Your task to perform on an android device: turn off picture-in-picture Image 0: 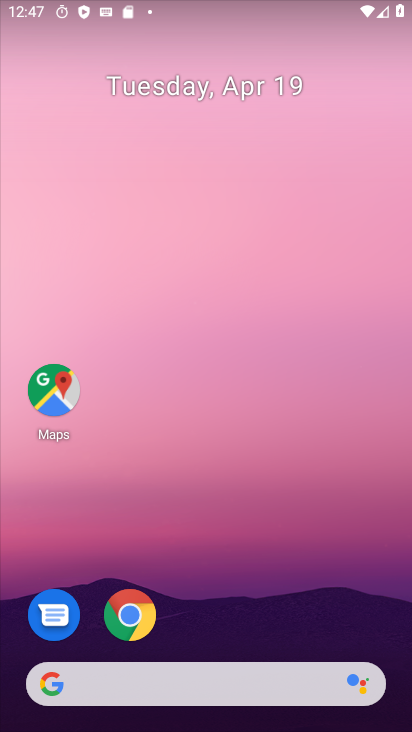
Step 0: drag from (358, 614) to (361, 79)
Your task to perform on an android device: turn off picture-in-picture Image 1: 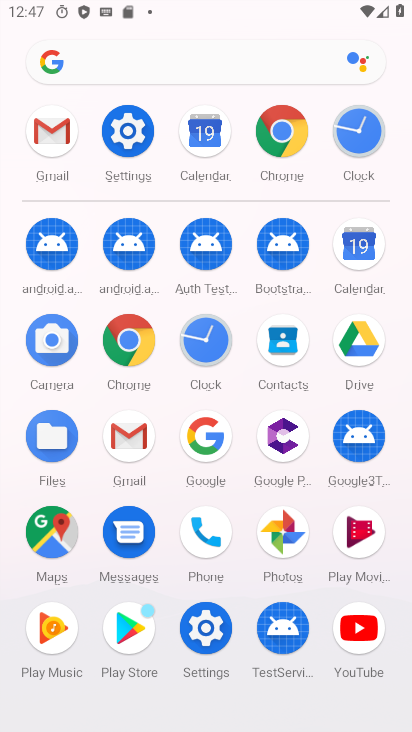
Step 1: click (128, 145)
Your task to perform on an android device: turn off picture-in-picture Image 2: 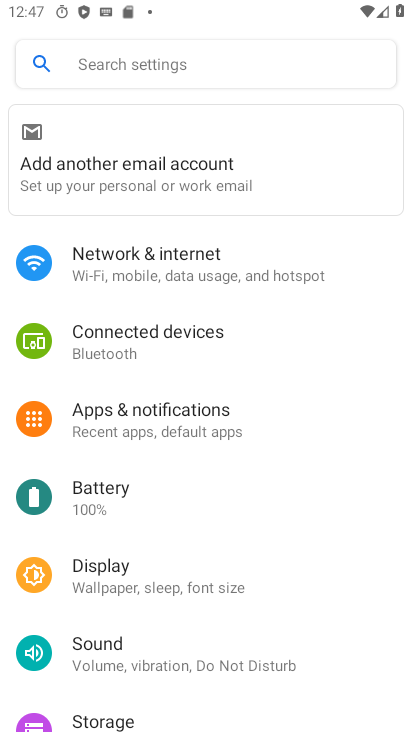
Step 2: drag from (354, 557) to (364, 365)
Your task to perform on an android device: turn off picture-in-picture Image 3: 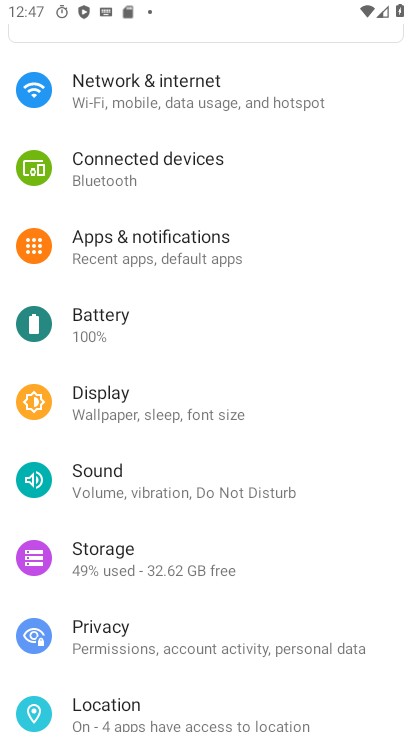
Step 3: drag from (377, 600) to (364, 364)
Your task to perform on an android device: turn off picture-in-picture Image 4: 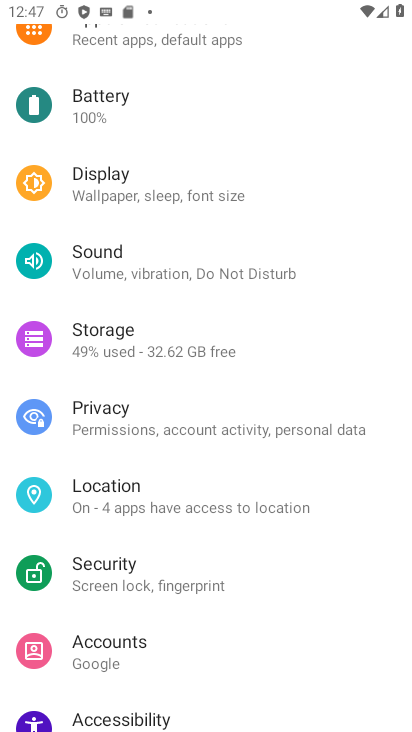
Step 4: drag from (378, 607) to (389, 371)
Your task to perform on an android device: turn off picture-in-picture Image 5: 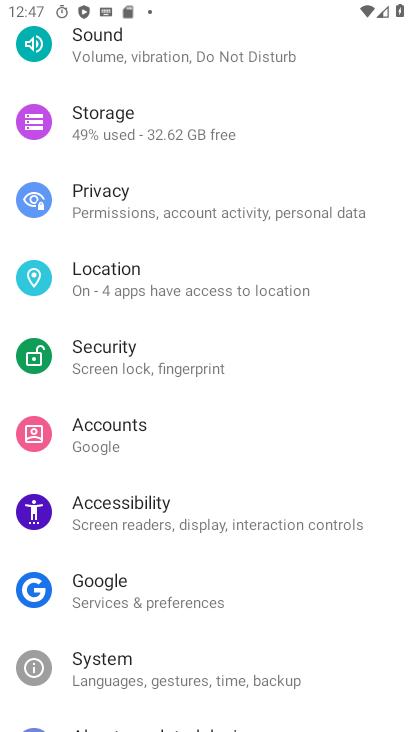
Step 5: drag from (369, 626) to (378, 399)
Your task to perform on an android device: turn off picture-in-picture Image 6: 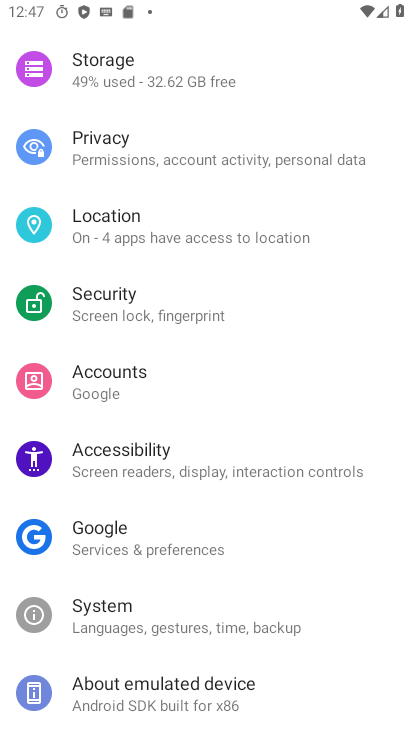
Step 6: drag from (376, 292) to (386, 509)
Your task to perform on an android device: turn off picture-in-picture Image 7: 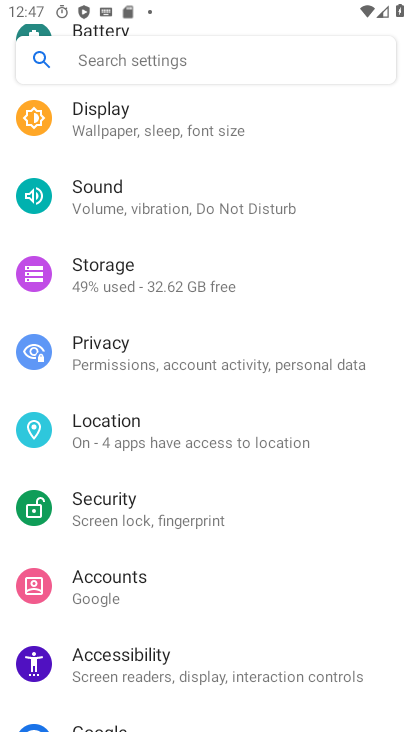
Step 7: drag from (378, 280) to (368, 445)
Your task to perform on an android device: turn off picture-in-picture Image 8: 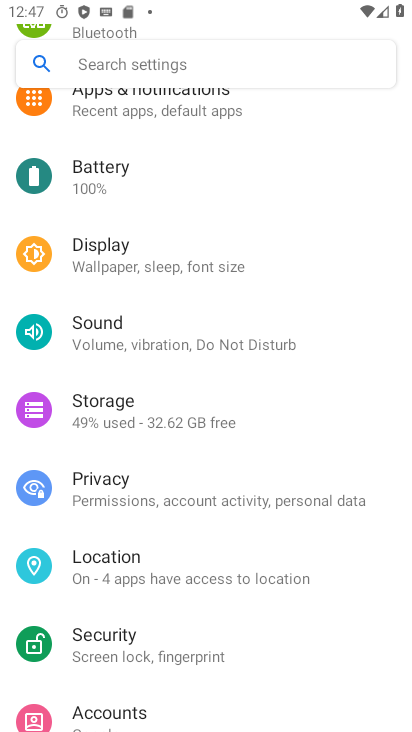
Step 8: drag from (365, 218) to (368, 428)
Your task to perform on an android device: turn off picture-in-picture Image 9: 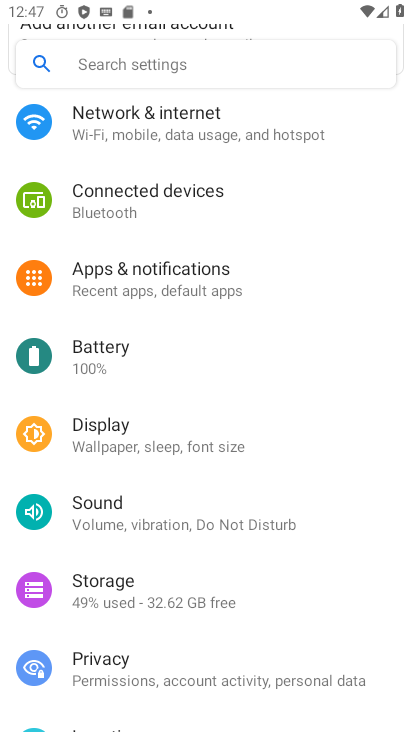
Step 9: click (193, 271)
Your task to perform on an android device: turn off picture-in-picture Image 10: 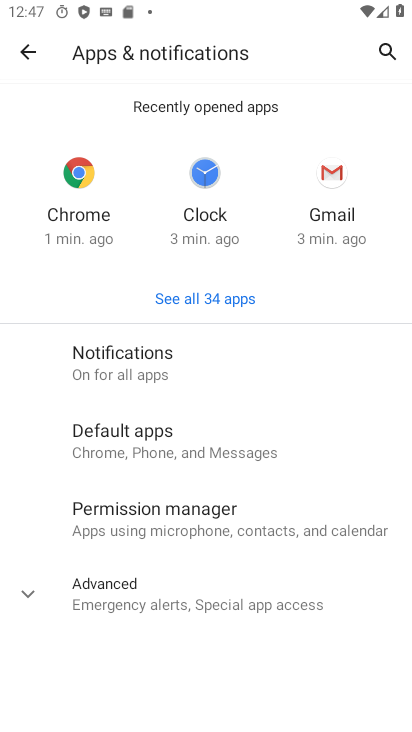
Step 10: click (265, 596)
Your task to perform on an android device: turn off picture-in-picture Image 11: 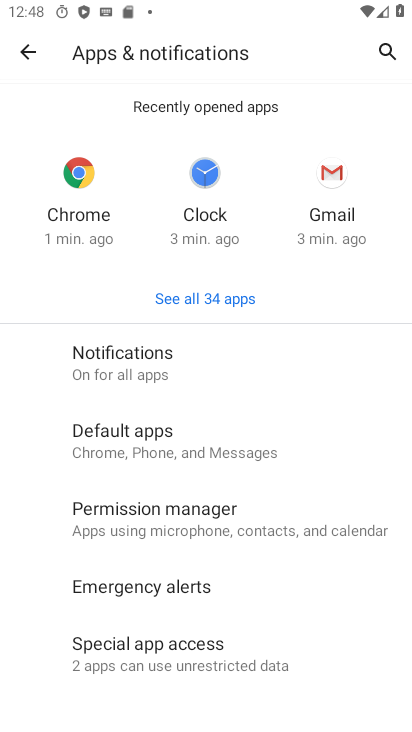
Step 11: drag from (331, 615) to (329, 379)
Your task to perform on an android device: turn off picture-in-picture Image 12: 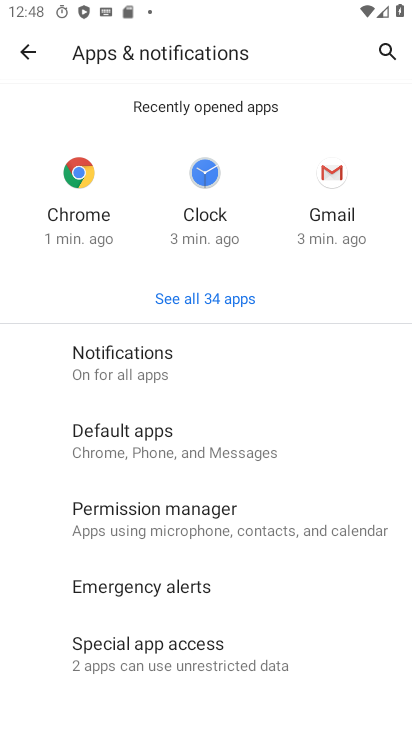
Step 12: click (245, 664)
Your task to perform on an android device: turn off picture-in-picture Image 13: 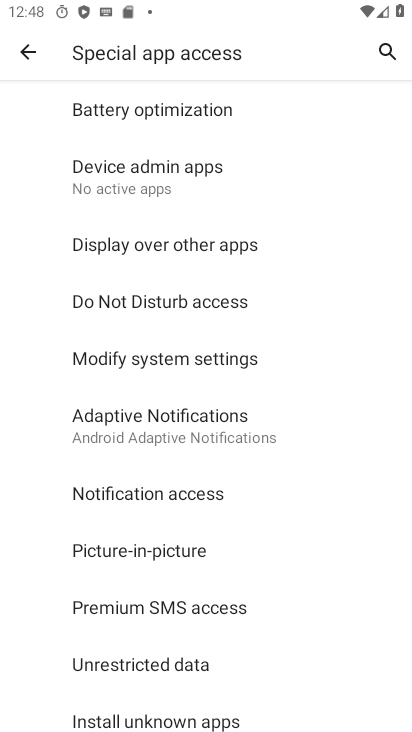
Step 13: click (193, 550)
Your task to perform on an android device: turn off picture-in-picture Image 14: 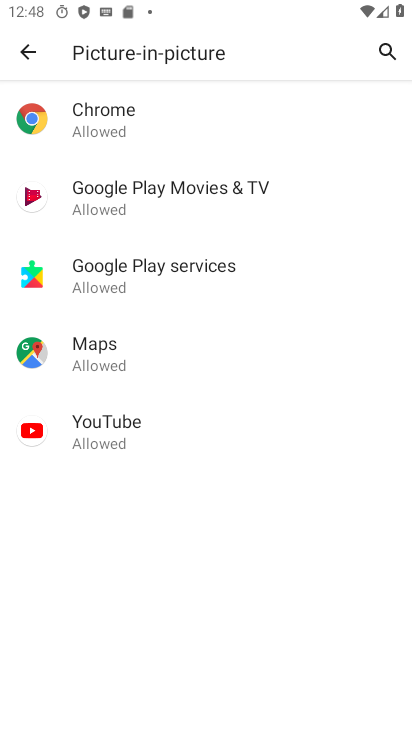
Step 14: click (87, 437)
Your task to perform on an android device: turn off picture-in-picture Image 15: 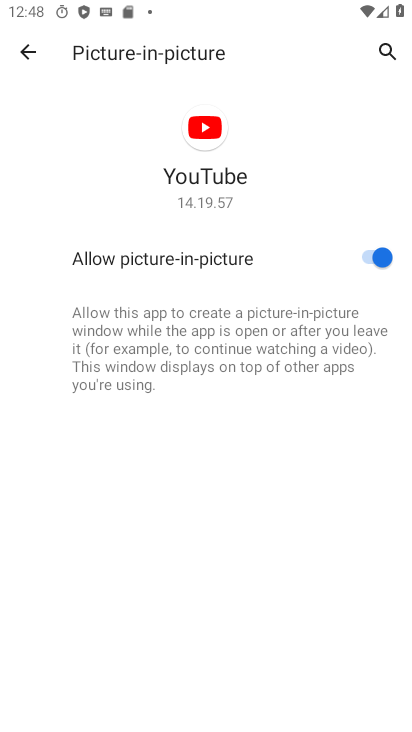
Step 15: click (367, 254)
Your task to perform on an android device: turn off picture-in-picture Image 16: 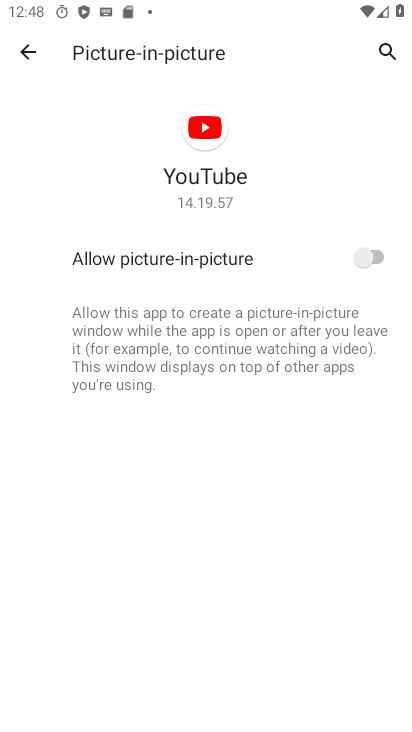
Step 16: task complete